Your task to perform on an android device: Go to eBay Image 0: 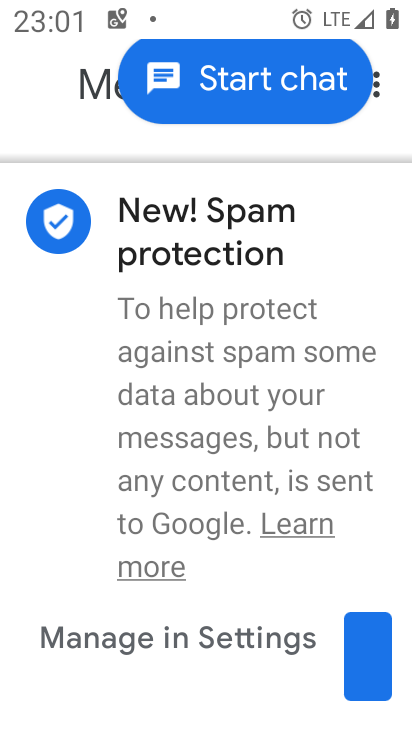
Step 0: press home button
Your task to perform on an android device: Go to eBay Image 1: 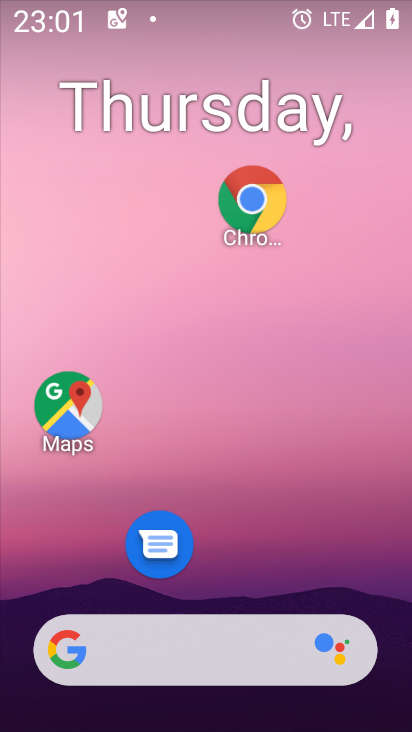
Step 1: press home button
Your task to perform on an android device: Go to eBay Image 2: 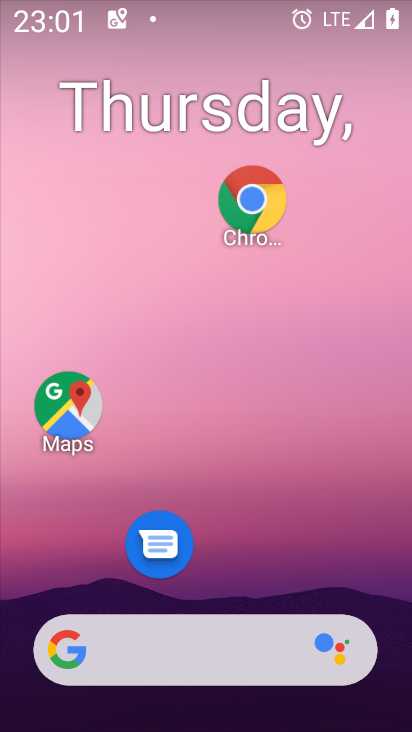
Step 2: press home button
Your task to perform on an android device: Go to eBay Image 3: 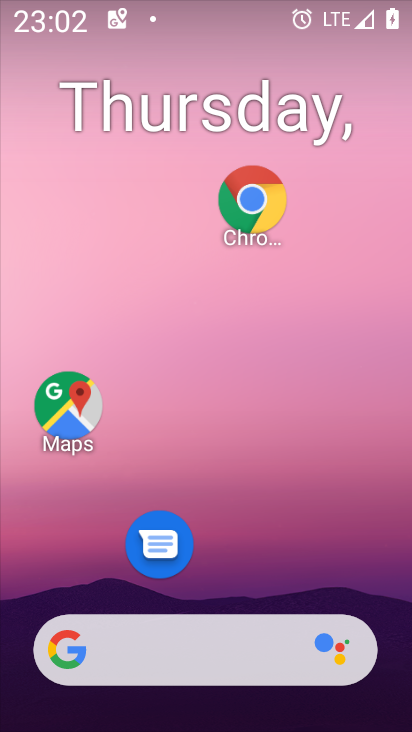
Step 3: click (187, 644)
Your task to perform on an android device: Go to eBay Image 4: 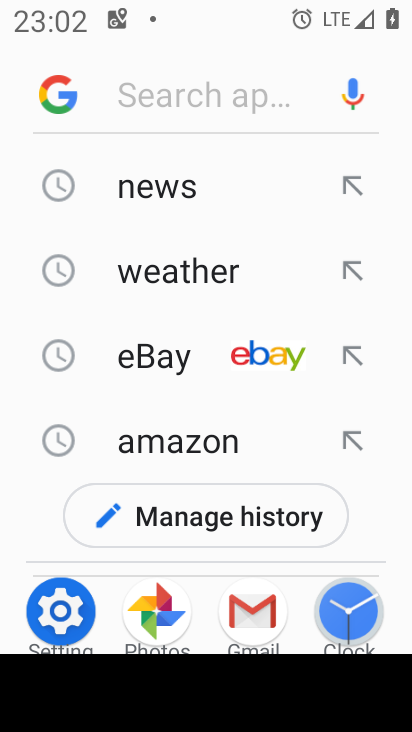
Step 4: click (254, 360)
Your task to perform on an android device: Go to eBay Image 5: 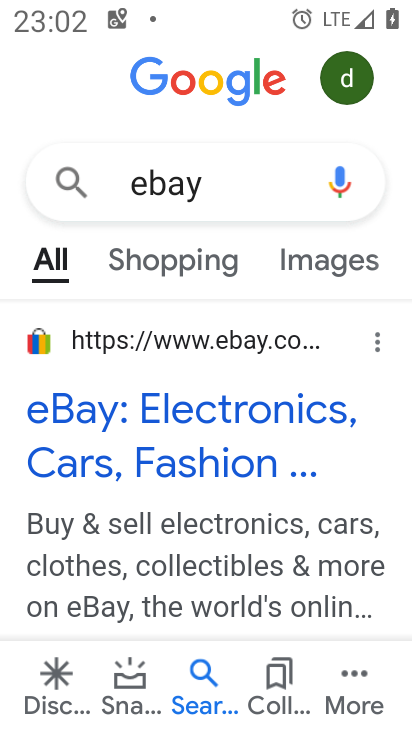
Step 5: click (111, 452)
Your task to perform on an android device: Go to eBay Image 6: 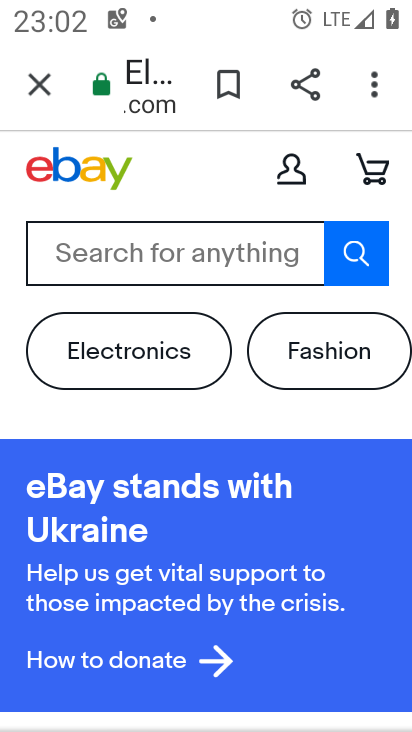
Step 6: task complete